Your task to perform on an android device: Go to battery settings Image 0: 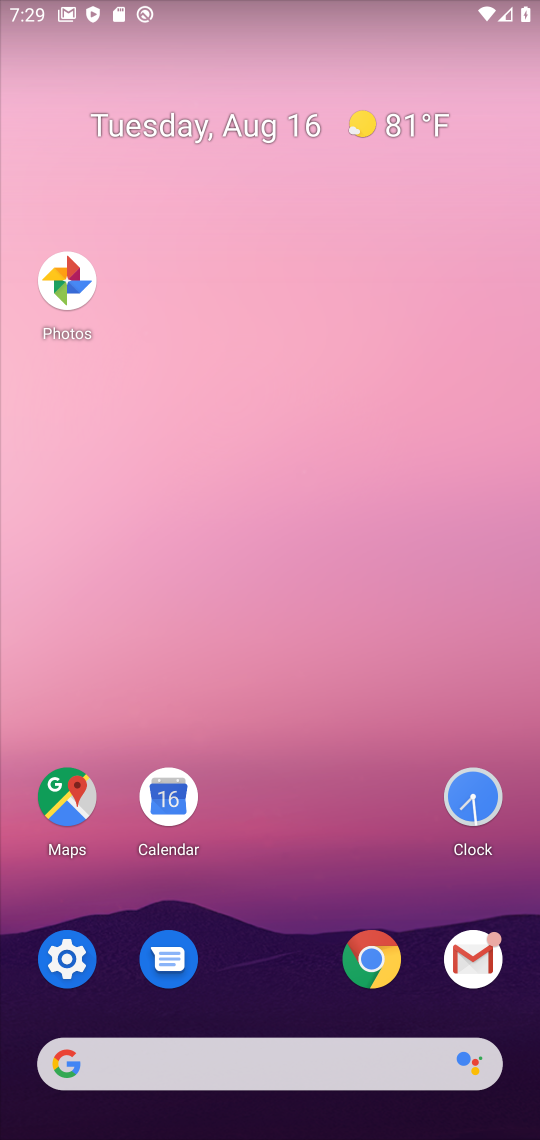
Step 0: click (62, 948)
Your task to perform on an android device: Go to battery settings Image 1: 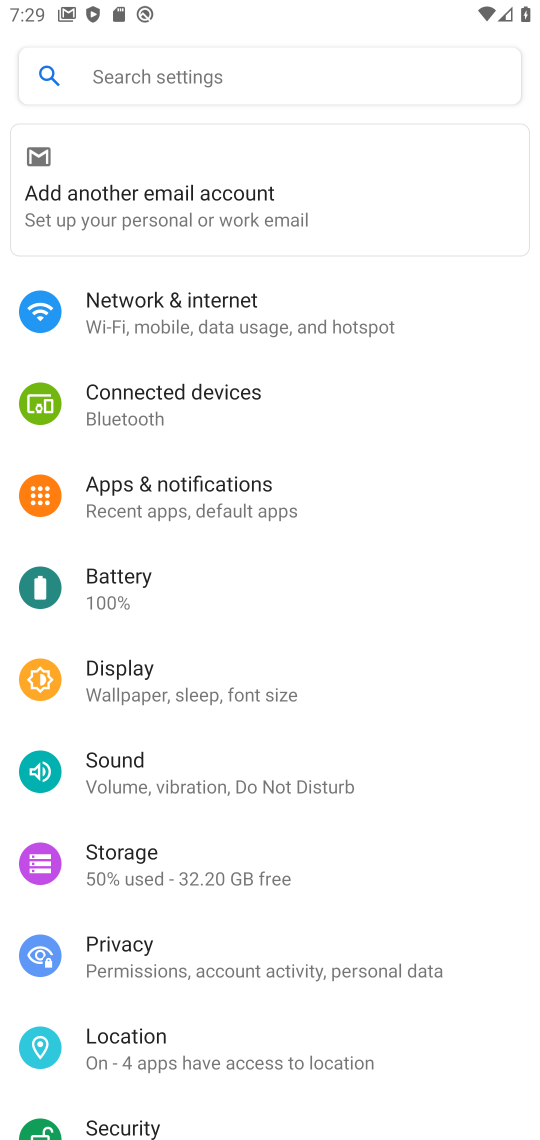
Step 1: click (101, 575)
Your task to perform on an android device: Go to battery settings Image 2: 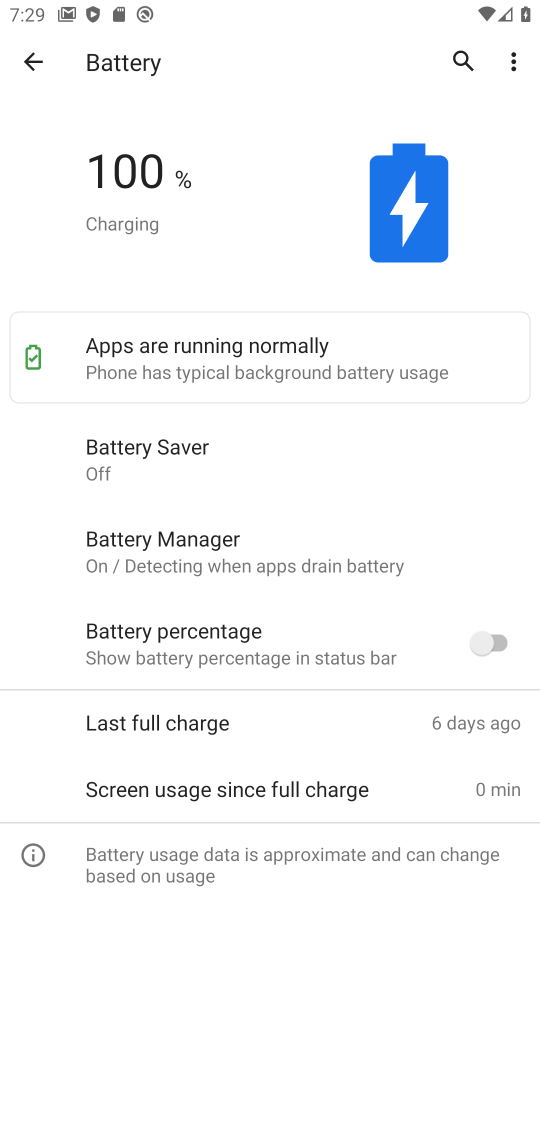
Step 2: task complete